Your task to perform on an android device: toggle translation in the chrome app Image 0: 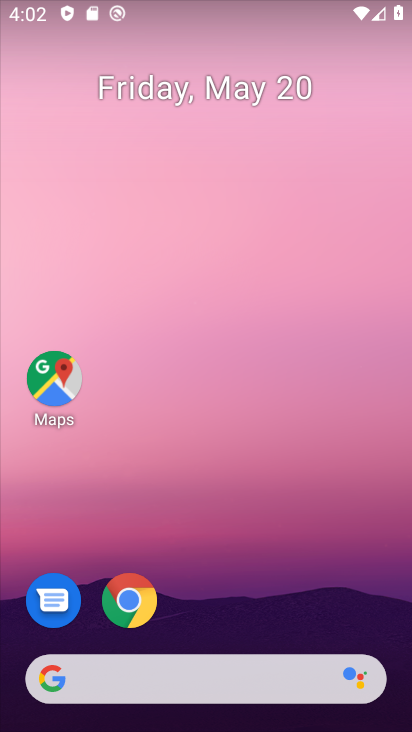
Step 0: drag from (176, 531) to (189, 29)
Your task to perform on an android device: toggle translation in the chrome app Image 1: 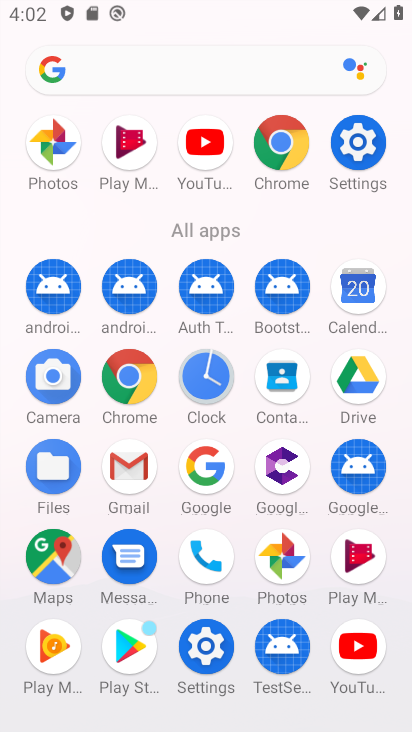
Step 1: drag from (7, 586) to (14, 255)
Your task to perform on an android device: toggle translation in the chrome app Image 2: 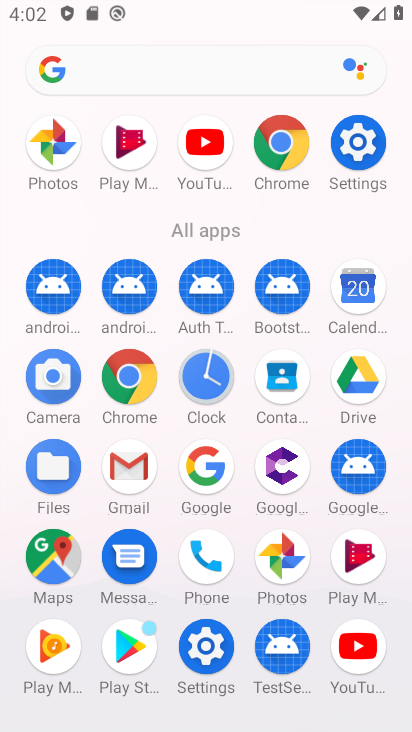
Step 2: drag from (15, 567) to (25, 308)
Your task to perform on an android device: toggle translation in the chrome app Image 3: 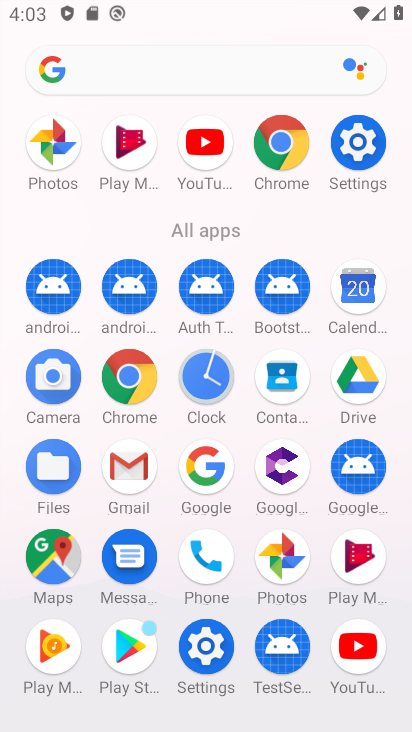
Step 3: click (122, 375)
Your task to perform on an android device: toggle translation in the chrome app Image 4: 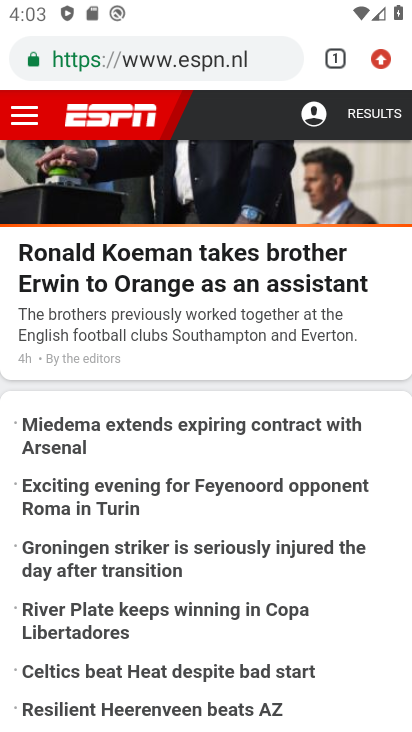
Step 4: drag from (386, 45) to (183, 613)
Your task to perform on an android device: toggle translation in the chrome app Image 5: 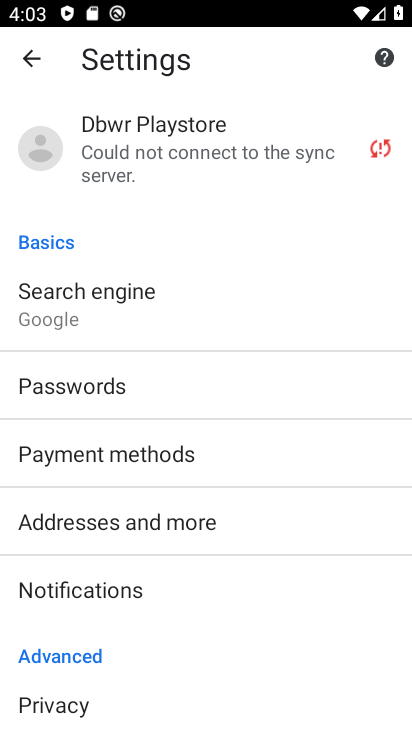
Step 5: drag from (133, 671) to (194, 199)
Your task to perform on an android device: toggle translation in the chrome app Image 6: 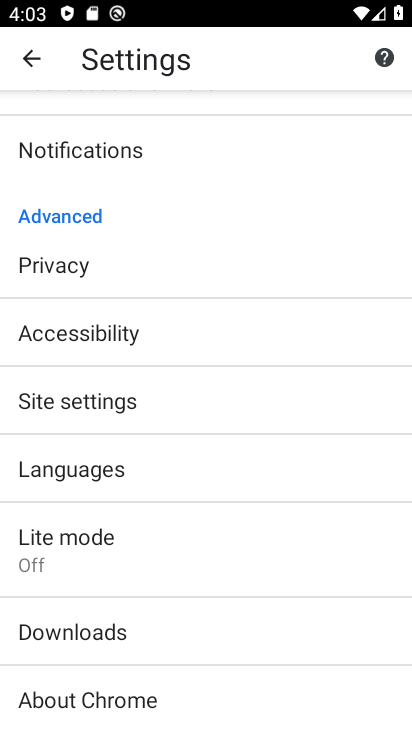
Step 6: drag from (167, 666) to (201, 173)
Your task to perform on an android device: toggle translation in the chrome app Image 7: 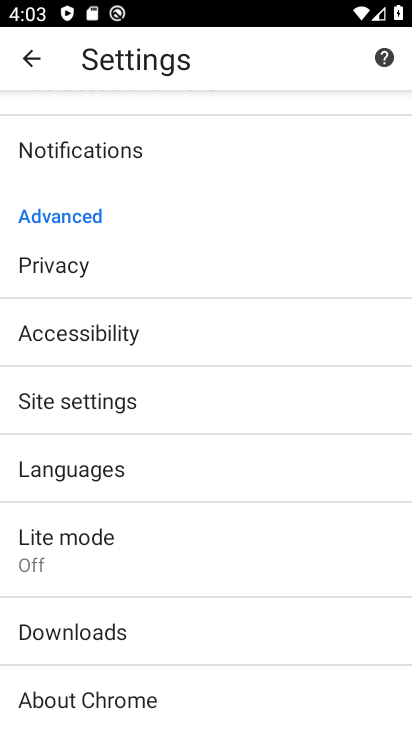
Step 7: drag from (165, 600) to (214, 204)
Your task to perform on an android device: toggle translation in the chrome app Image 8: 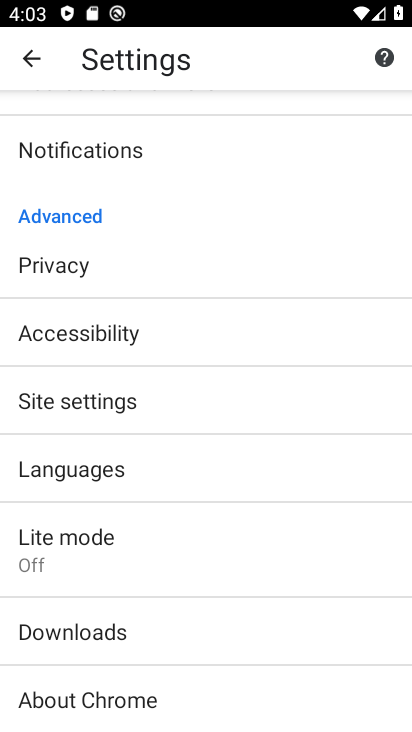
Step 8: click (108, 466)
Your task to perform on an android device: toggle translation in the chrome app Image 9: 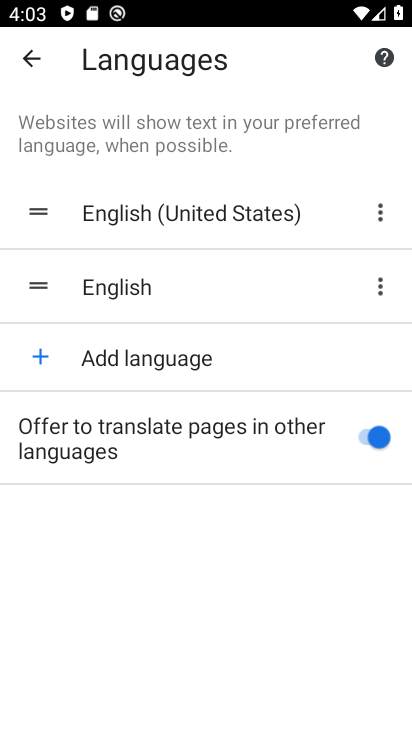
Step 9: click (372, 430)
Your task to perform on an android device: toggle translation in the chrome app Image 10: 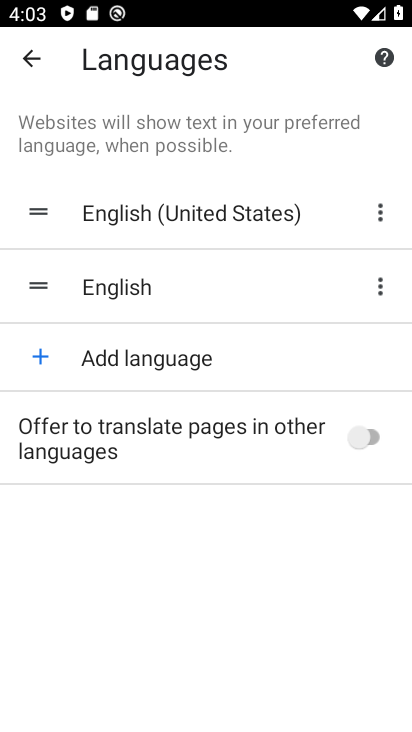
Step 10: task complete